Your task to perform on an android device: Open wifi settings Image 0: 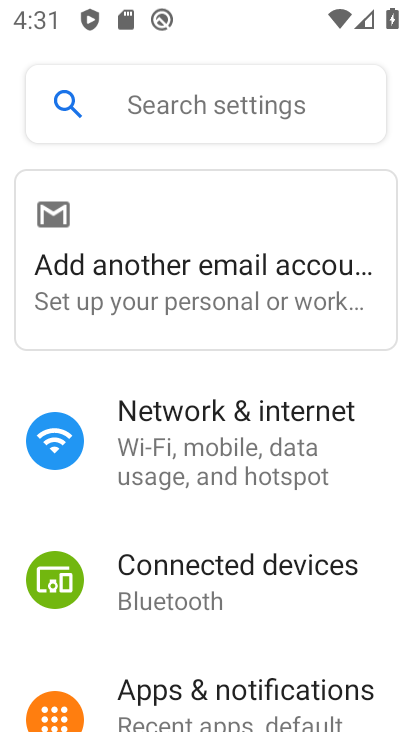
Step 0: press home button
Your task to perform on an android device: Open wifi settings Image 1: 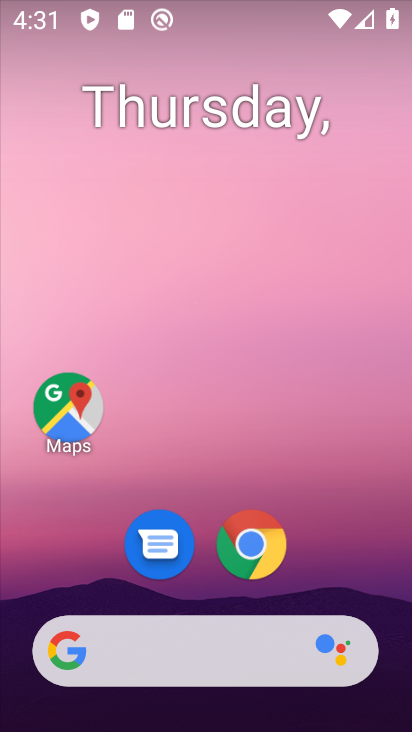
Step 1: drag from (226, 436) to (243, 130)
Your task to perform on an android device: Open wifi settings Image 2: 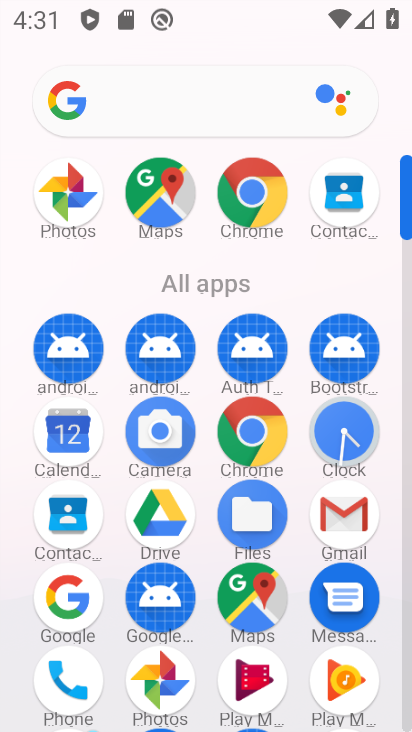
Step 2: drag from (204, 558) to (202, 321)
Your task to perform on an android device: Open wifi settings Image 3: 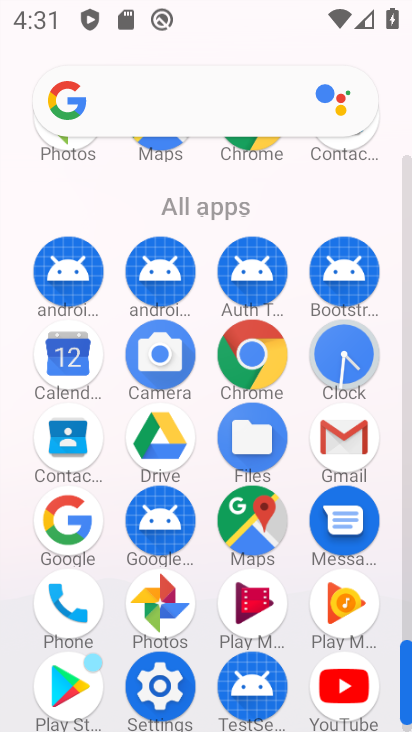
Step 3: click (156, 670)
Your task to perform on an android device: Open wifi settings Image 4: 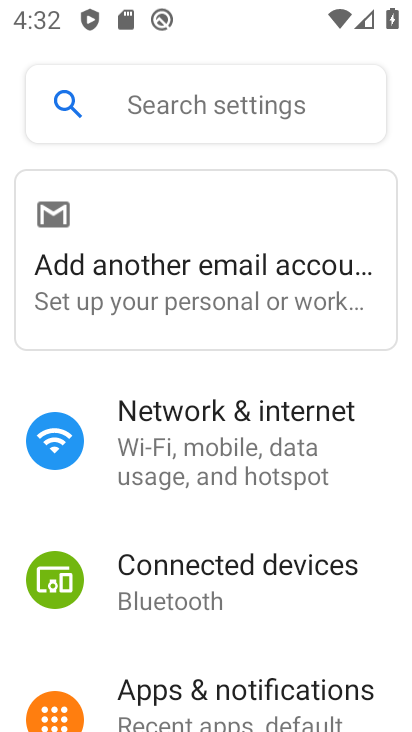
Step 4: click (207, 453)
Your task to perform on an android device: Open wifi settings Image 5: 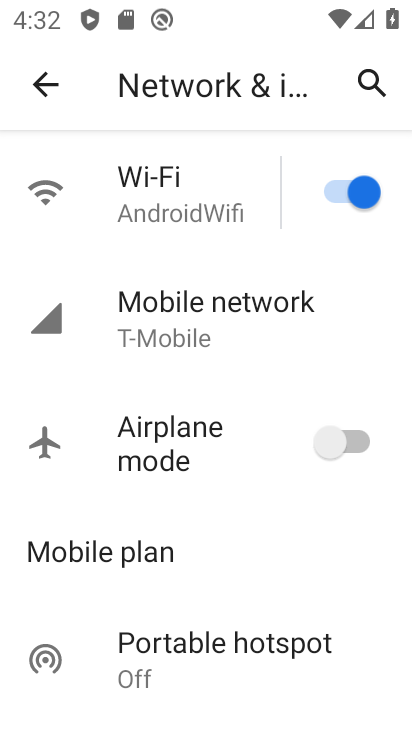
Step 5: click (152, 188)
Your task to perform on an android device: Open wifi settings Image 6: 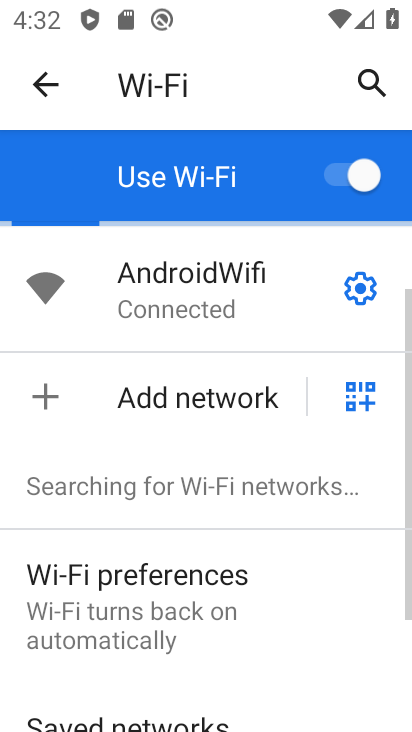
Step 6: task complete